Your task to perform on an android device: Turn off the flashlight Image 0: 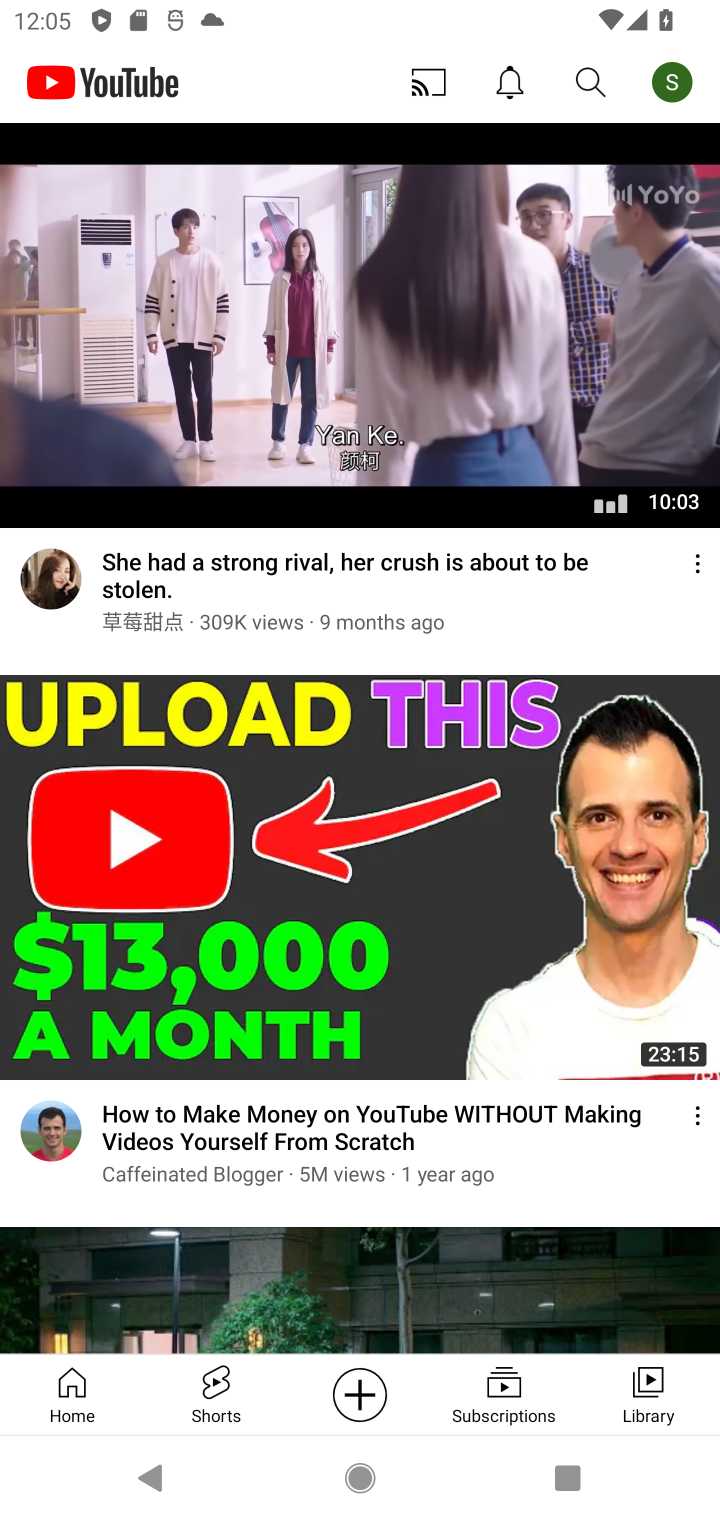
Step 0: press home button
Your task to perform on an android device: Turn off the flashlight Image 1: 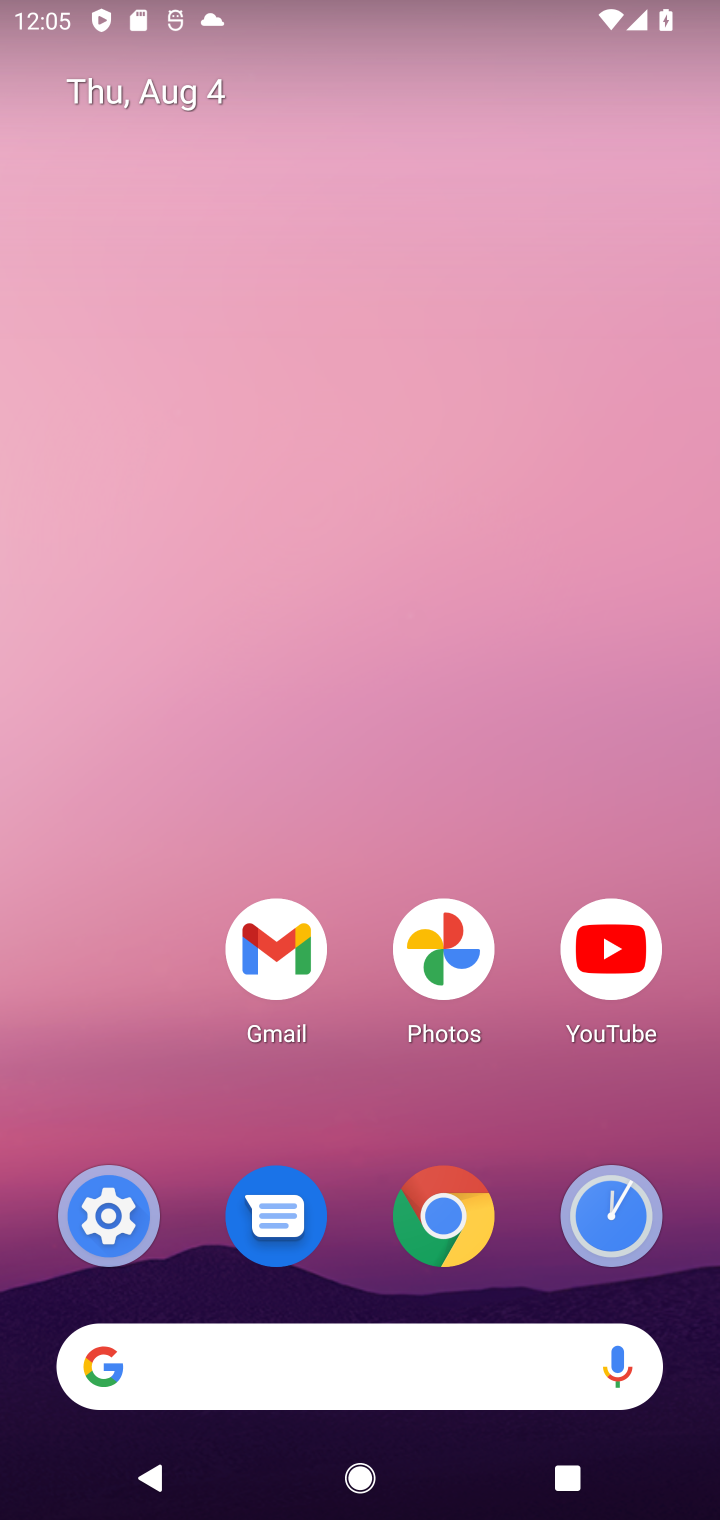
Step 1: drag from (315, 1379) to (341, 305)
Your task to perform on an android device: Turn off the flashlight Image 2: 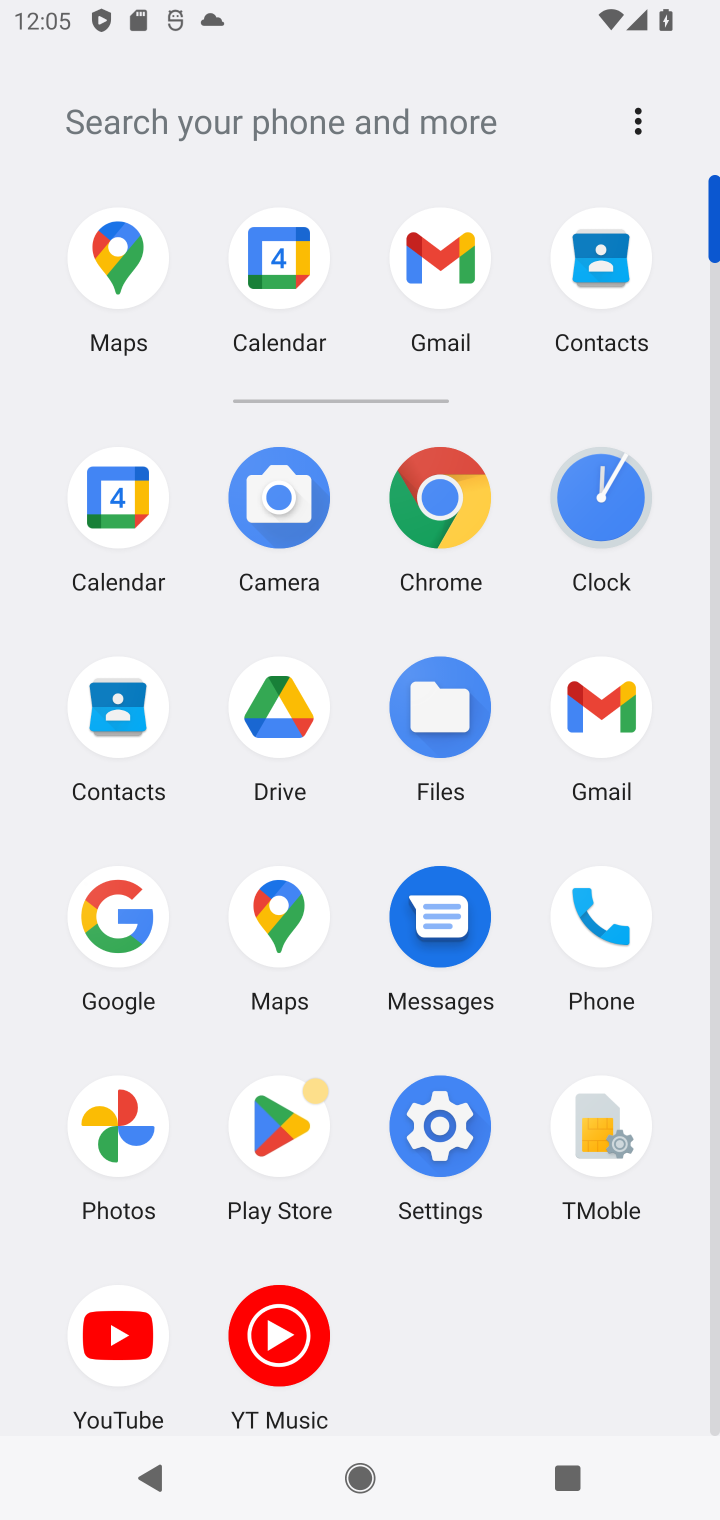
Step 2: click (438, 1123)
Your task to perform on an android device: Turn off the flashlight Image 3: 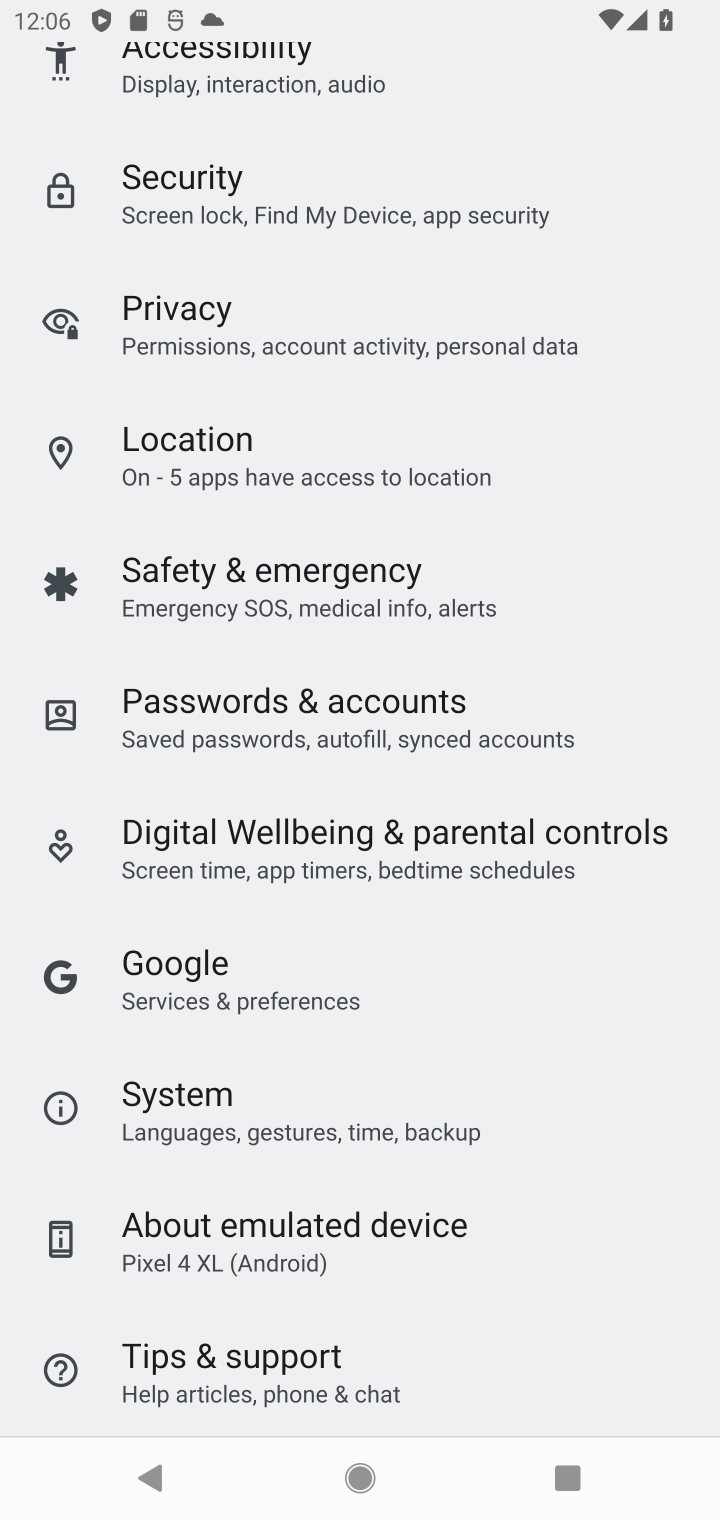
Step 3: drag from (292, 864) to (264, 1112)
Your task to perform on an android device: Turn off the flashlight Image 4: 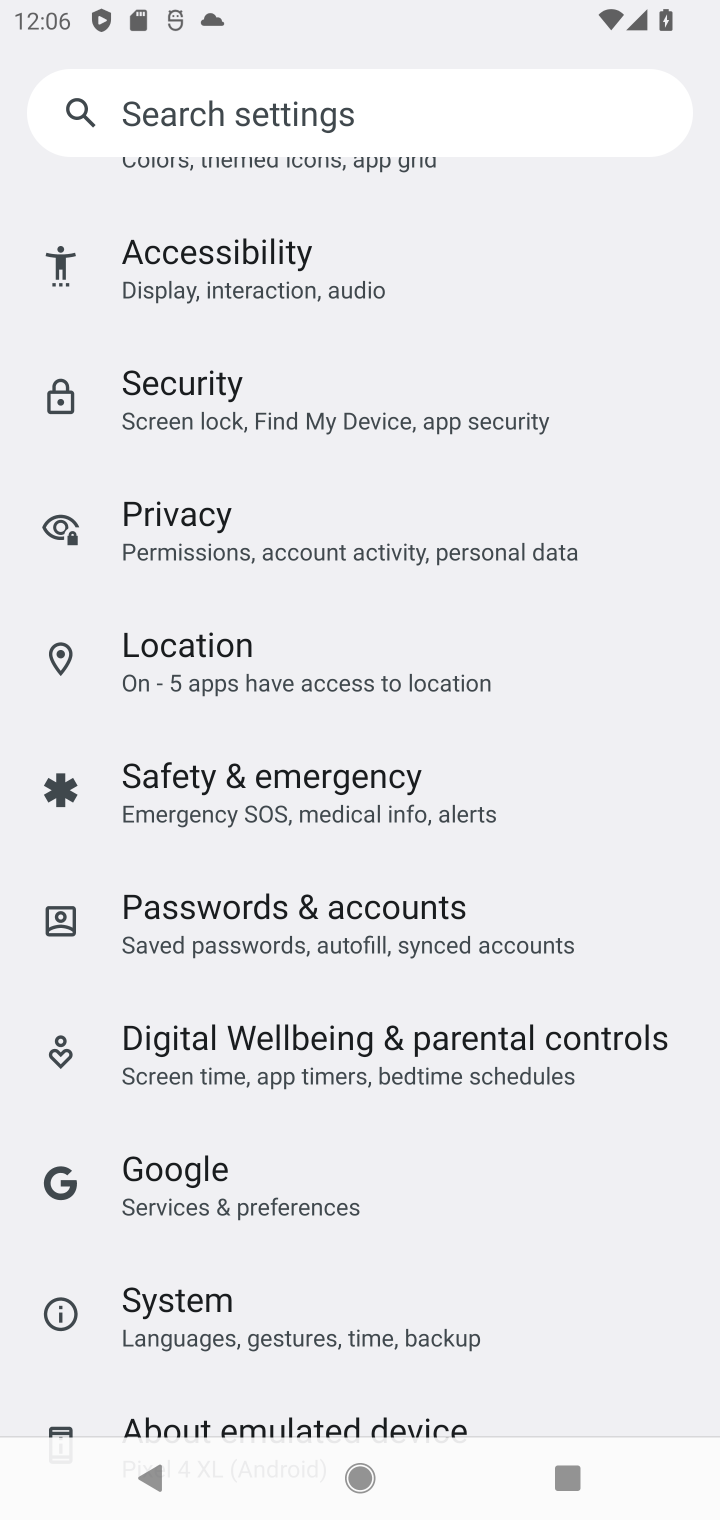
Step 4: drag from (369, 461) to (349, 881)
Your task to perform on an android device: Turn off the flashlight Image 5: 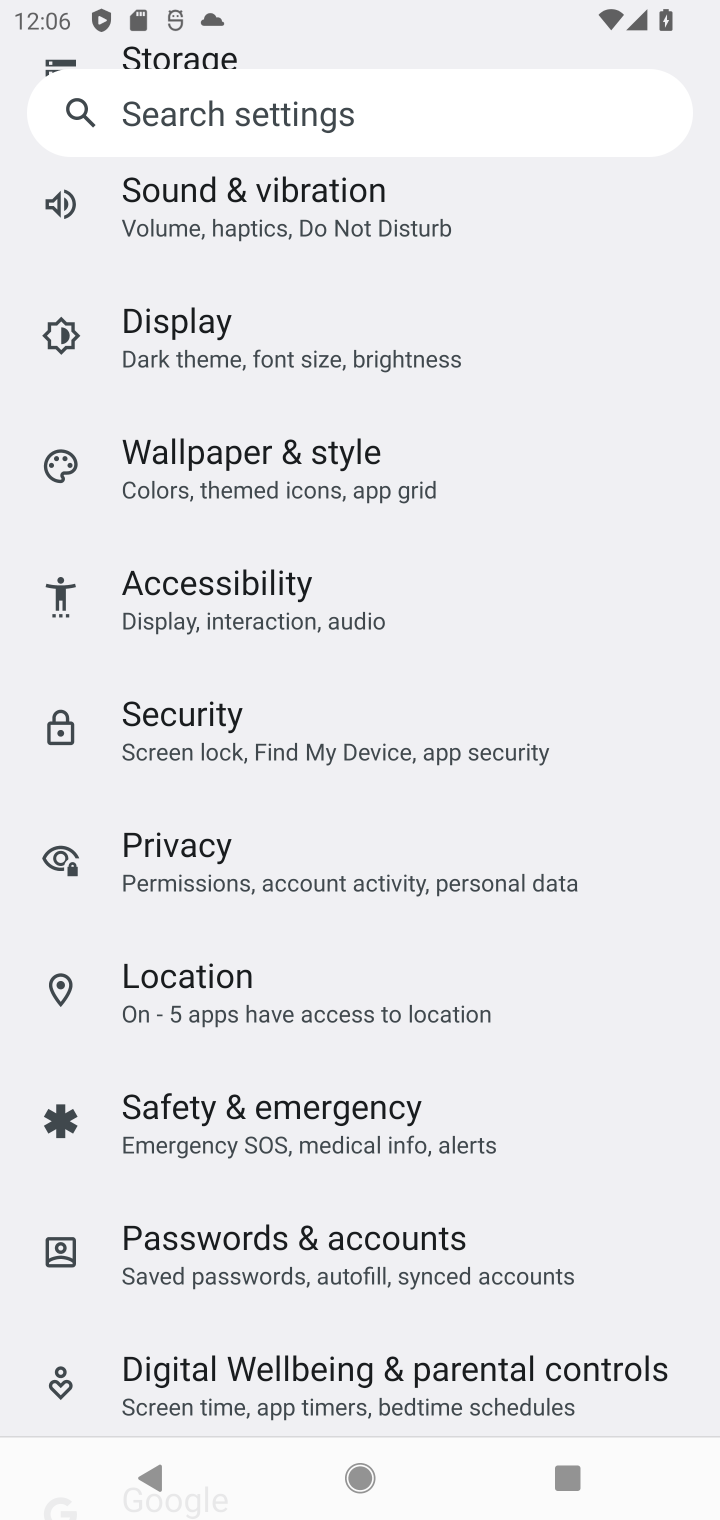
Step 5: click (281, 363)
Your task to perform on an android device: Turn off the flashlight Image 6: 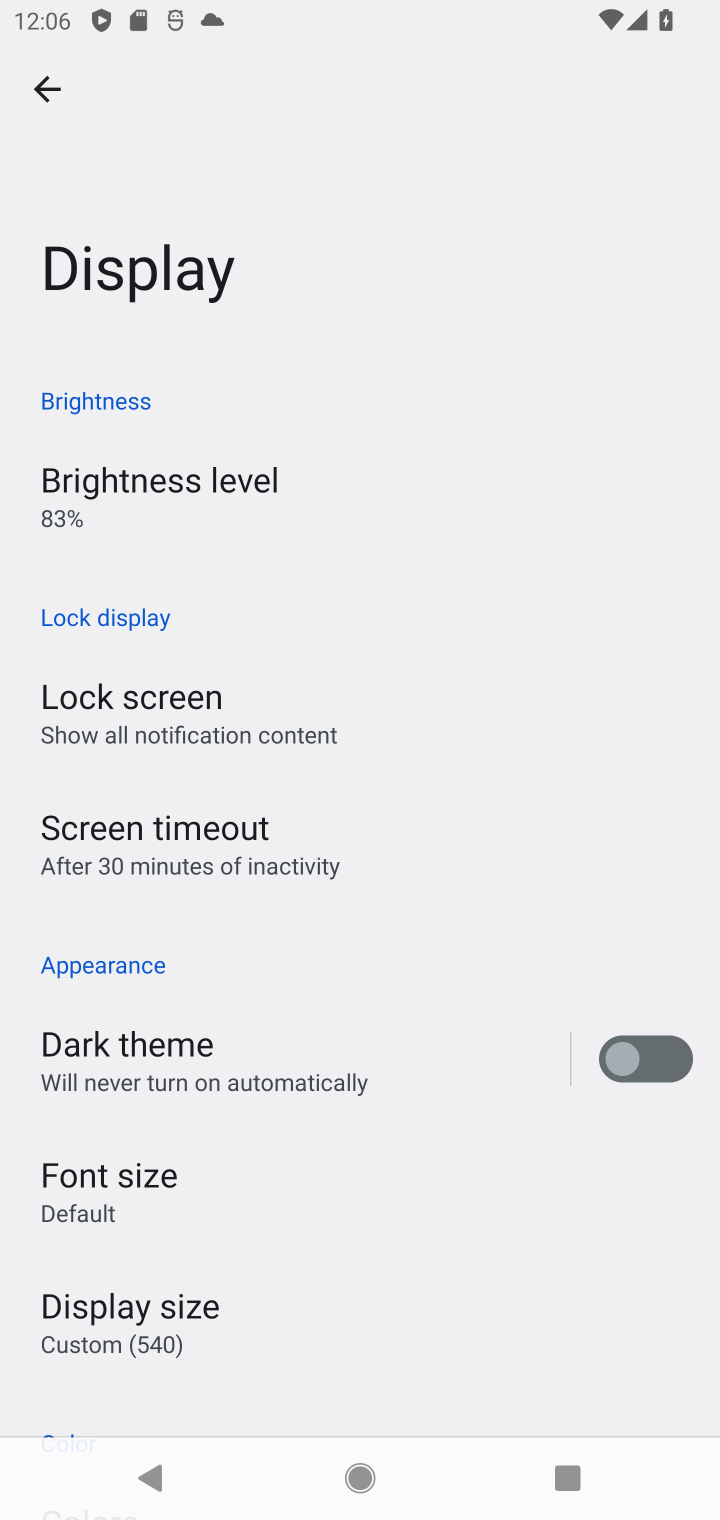
Step 6: task complete